Your task to perform on an android device: Open Amazon Image 0: 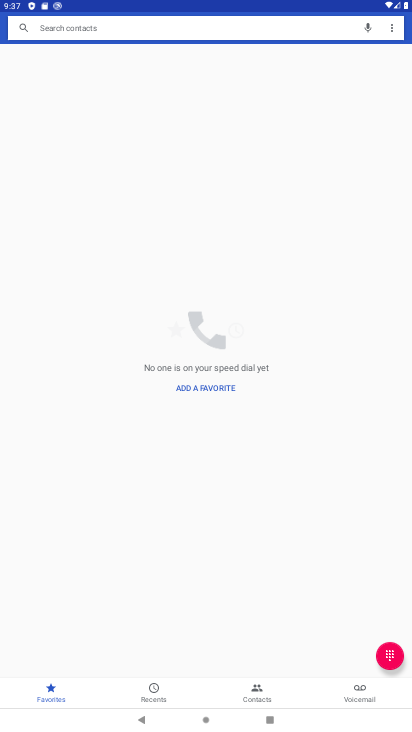
Step 0: press home button
Your task to perform on an android device: Open Amazon Image 1: 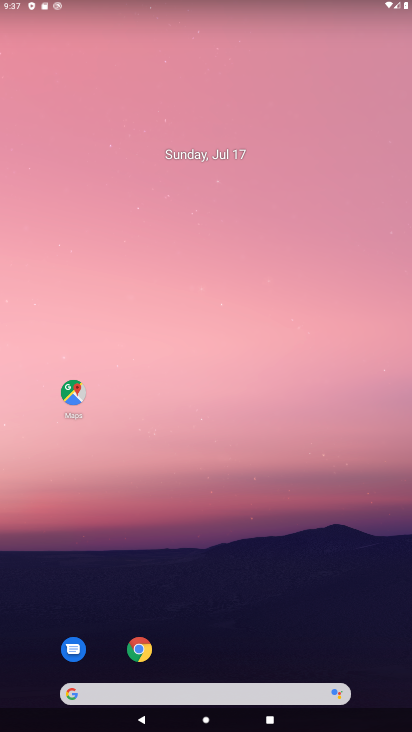
Step 1: click (152, 697)
Your task to perform on an android device: Open Amazon Image 2: 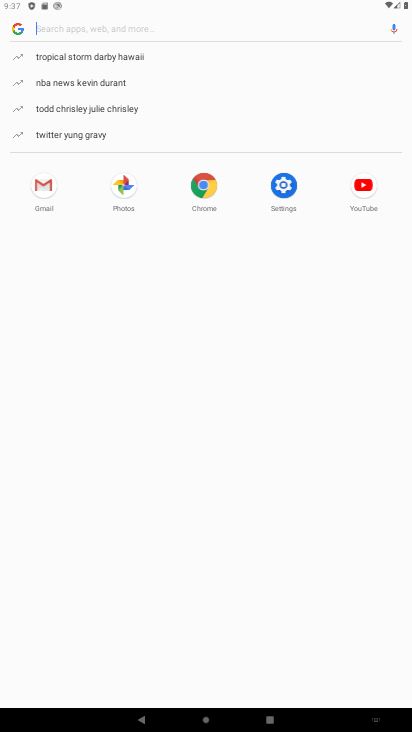
Step 2: type "Amazon"
Your task to perform on an android device: Open Amazon Image 3: 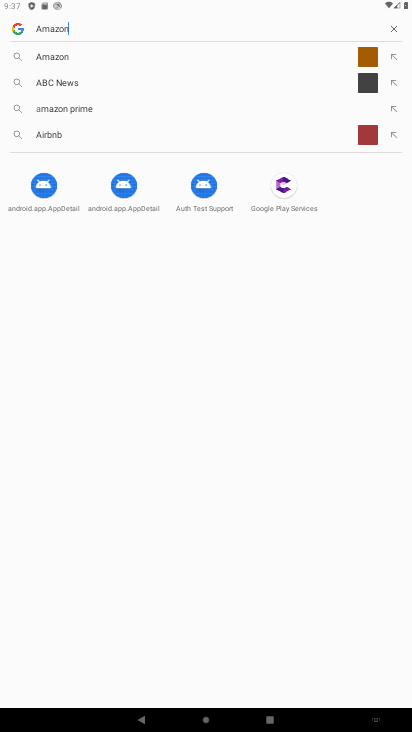
Step 3: type ""
Your task to perform on an android device: Open Amazon Image 4: 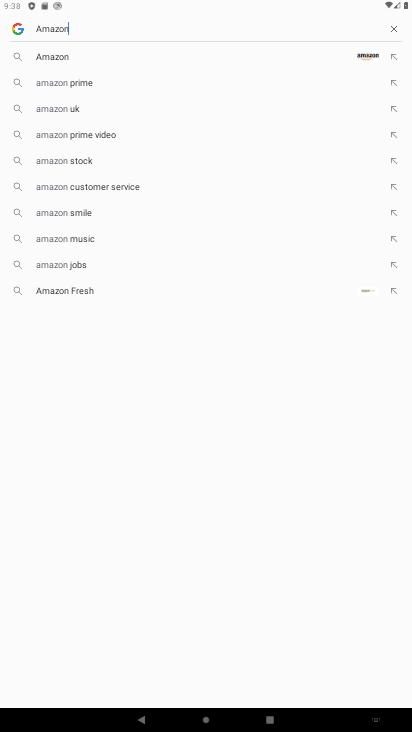
Step 4: click (54, 56)
Your task to perform on an android device: Open Amazon Image 5: 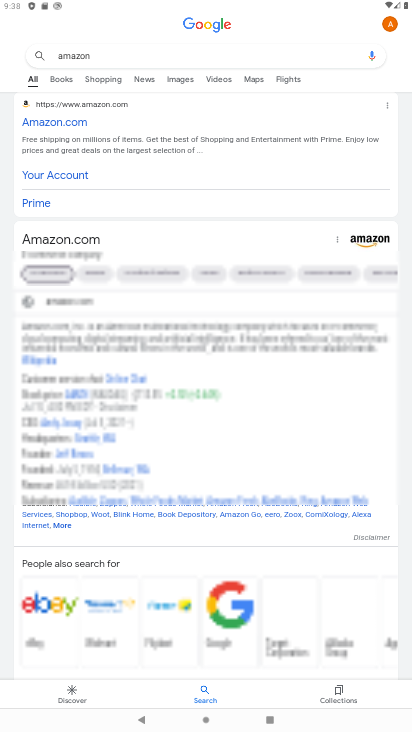
Step 5: task complete